Your task to perform on an android device: When is my next appointment? Image 0: 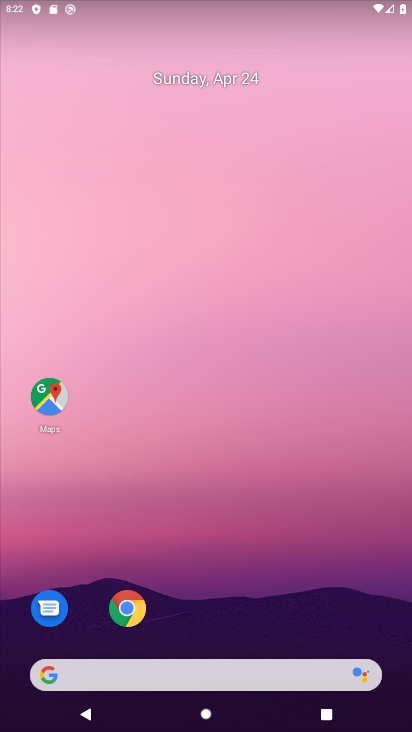
Step 0: drag from (278, 552) to (298, 183)
Your task to perform on an android device: When is my next appointment? Image 1: 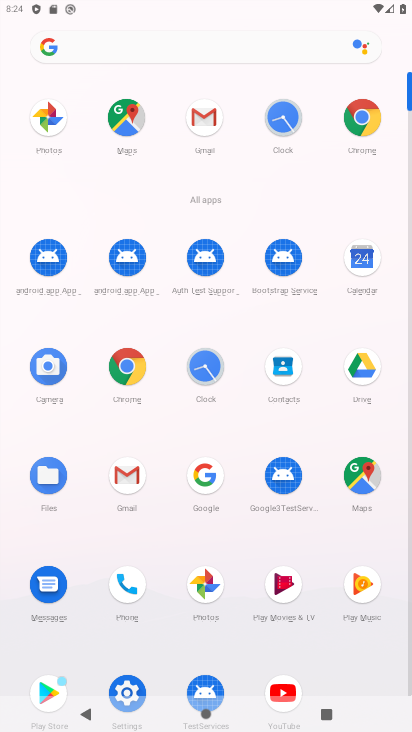
Step 1: click (348, 261)
Your task to perform on an android device: When is my next appointment? Image 2: 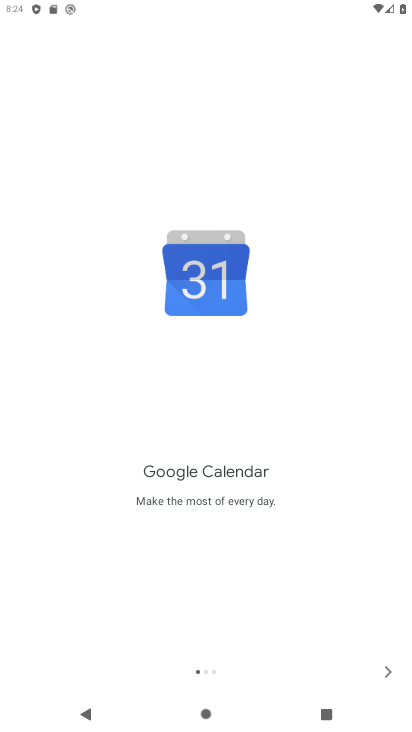
Step 2: click (380, 674)
Your task to perform on an android device: When is my next appointment? Image 3: 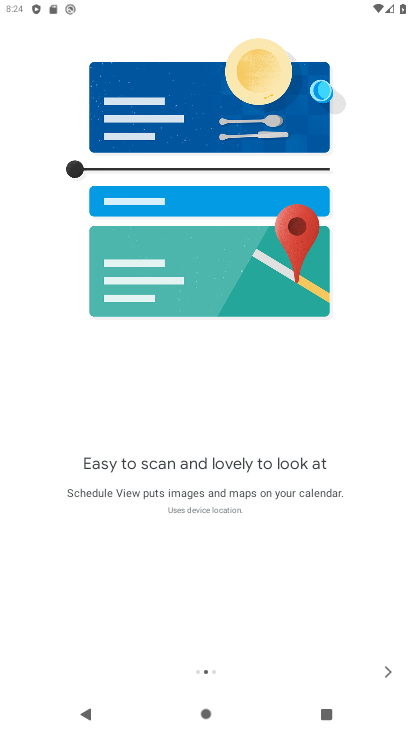
Step 3: click (378, 674)
Your task to perform on an android device: When is my next appointment? Image 4: 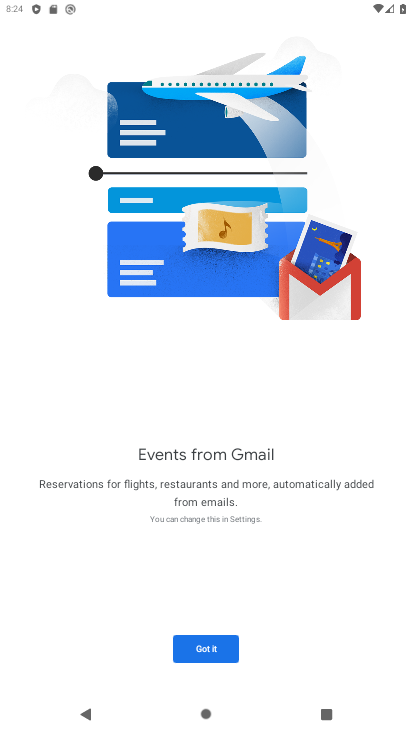
Step 4: click (214, 625)
Your task to perform on an android device: When is my next appointment? Image 5: 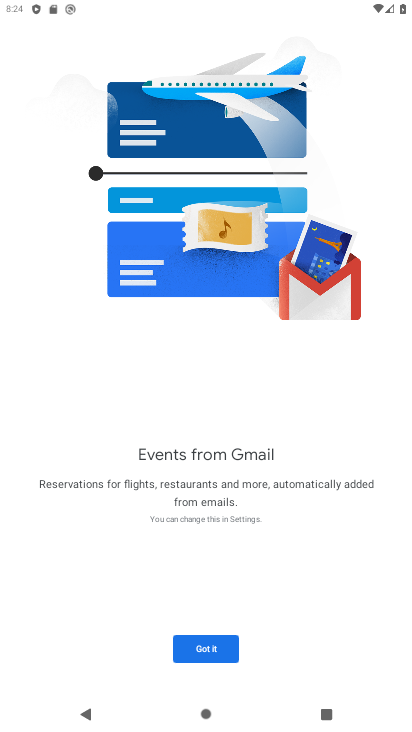
Step 5: click (202, 648)
Your task to perform on an android device: When is my next appointment? Image 6: 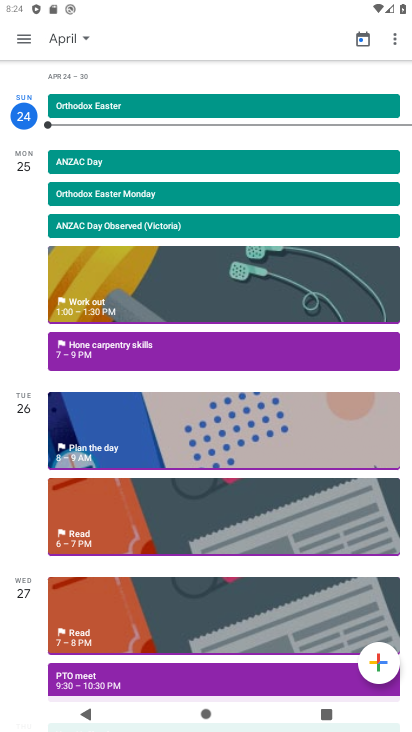
Step 6: click (20, 34)
Your task to perform on an android device: When is my next appointment? Image 7: 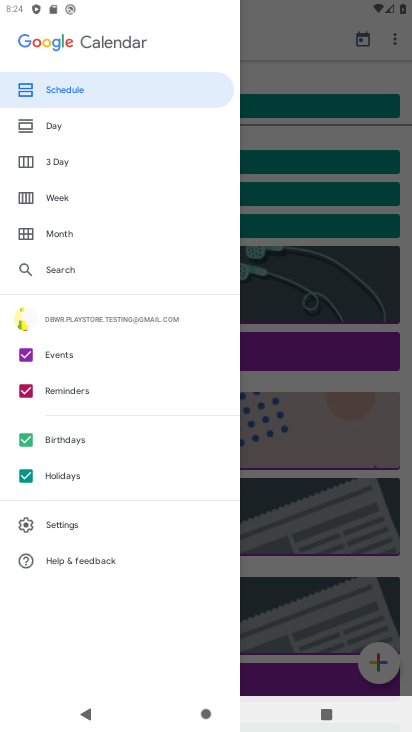
Step 7: click (79, 92)
Your task to perform on an android device: When is my next appointment? Image 8: 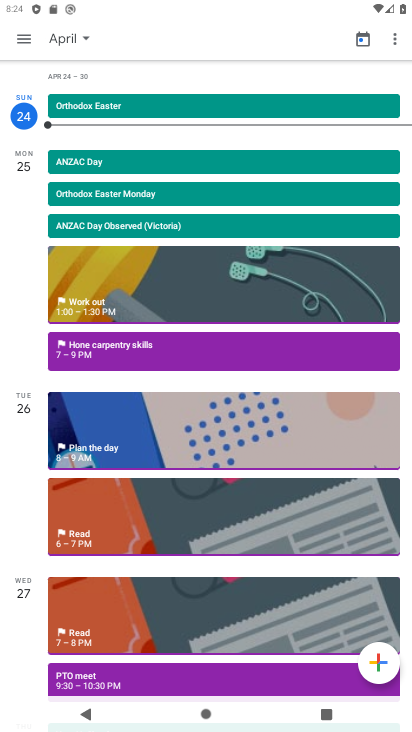
Step 8: task complete